Your task to perform on an android device: toggle show notifications on the lock screen Image 0: 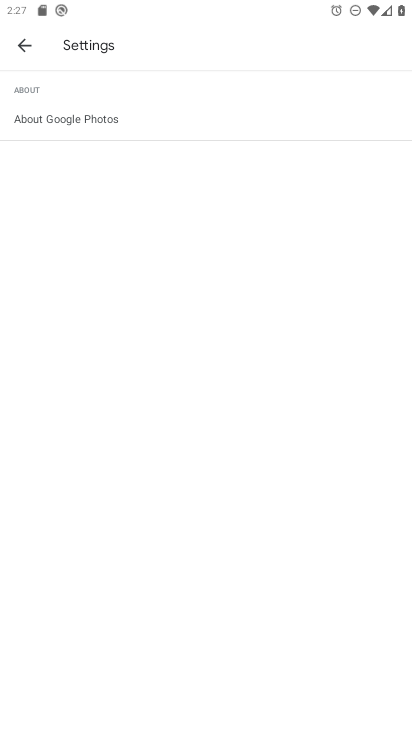
Step 0: click (17, 45)
Your task to perform on an android device: toggle show notifications on the lock screen Image 1: 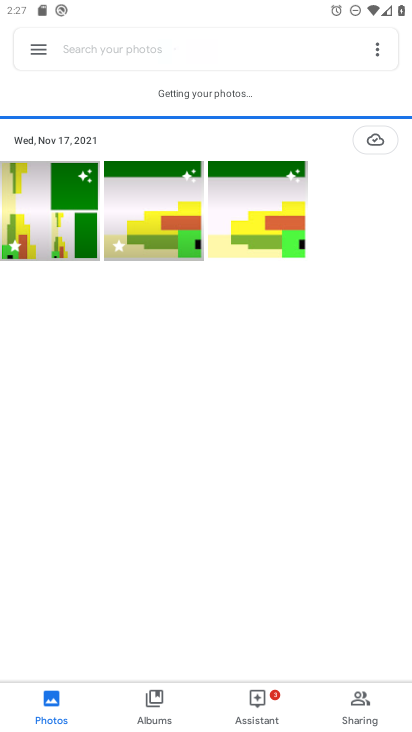
Step 1: press home button
Your task to perform on an android device: toggle show notifications on the lock screen Image 2: 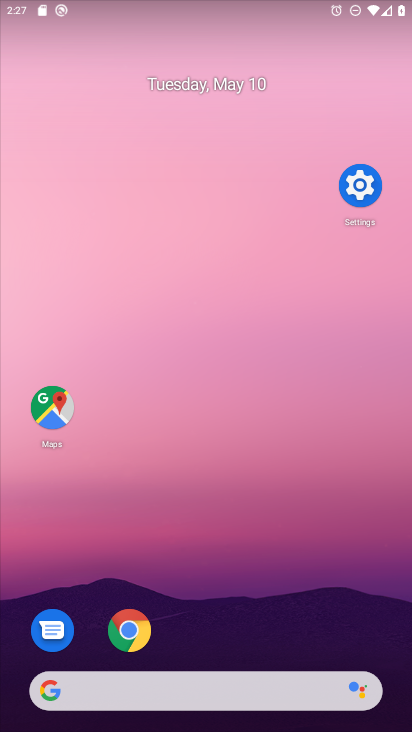
Step 2: drag from (303, 622) to (232, 55)
Your task to perform on an android device: toggle show notifications on the lock screen Image 3: 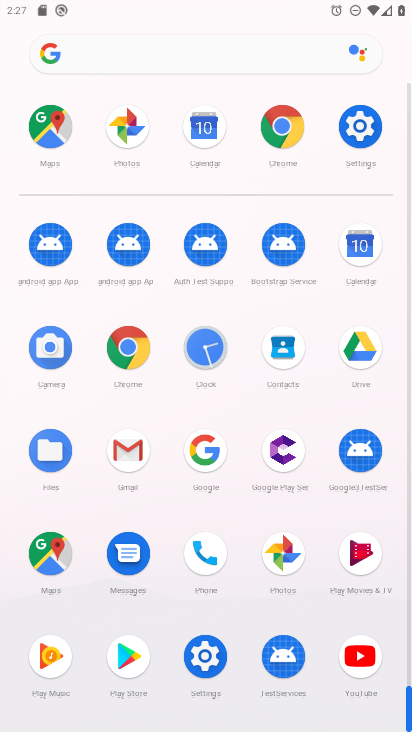
Step 3: click (352, 120)
Your task to perform on an android device: toggle show notifications on the lock screen Image 4: 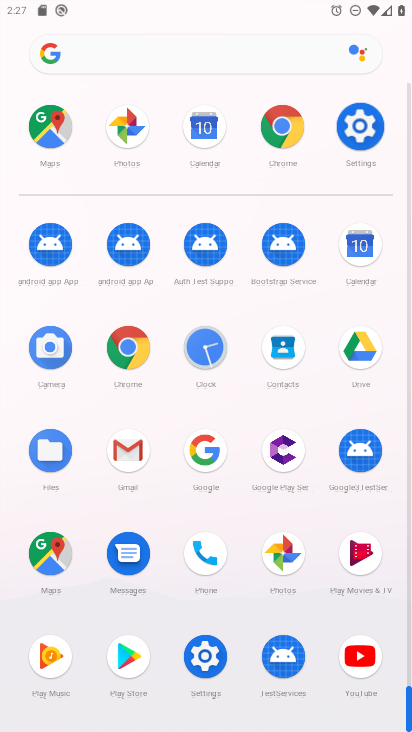
Step 4: click (352, 120)
Your task to perform on an android device: toggle show notifications on the lock screen Image 5: 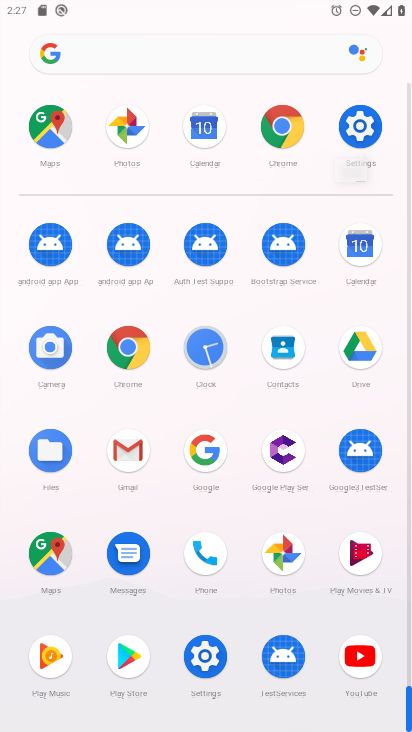
Step 5: click (352, 120)
Your task to perform on an android device: toggle show notifications on the lock screen Image 6: 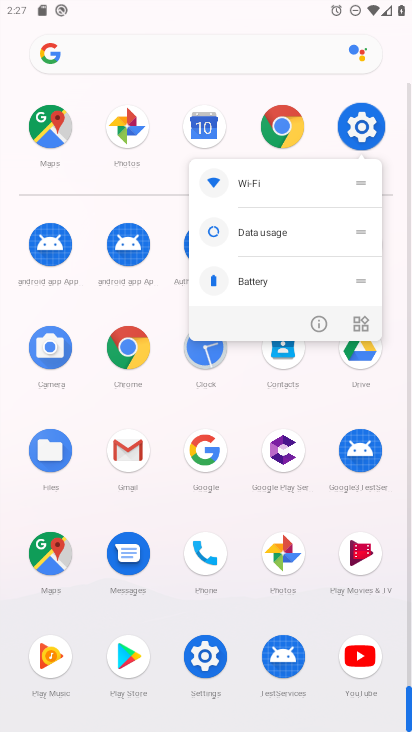
Step 6: click (352, 120)
Your task to perform on an android device: toggle show notifications on the lock screen Image 7: 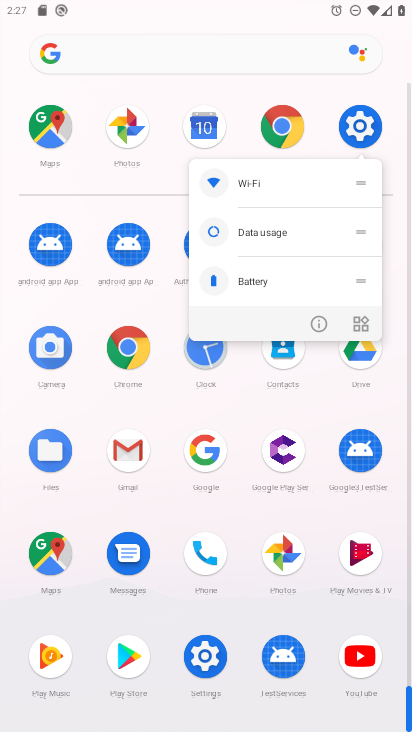
Step 7: click (352, 120)
Your task to perform on an android device: toggle show notifications on the lock screen Image 8: 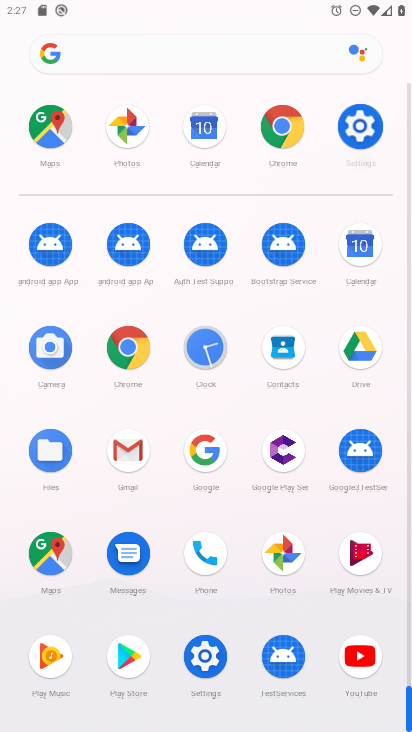
Step 8: click (353, 121)
Your task to perform on an android device: toggle show notifications on the lock screen Image 9: 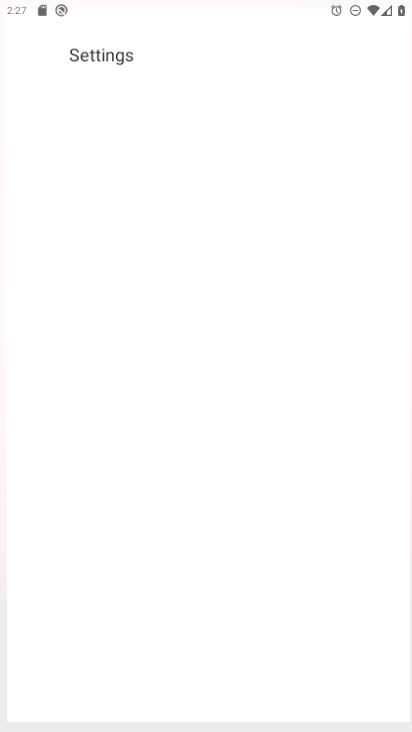
Step 9: click (355, 121)
Your task to perform on an android device: toggle show notifications on the lock screen Image 10: 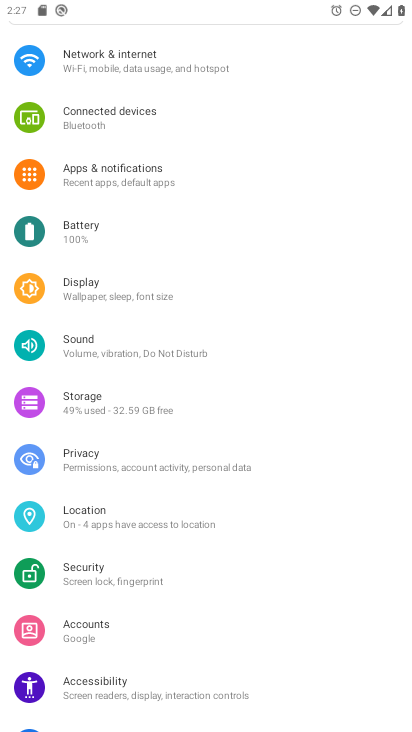
Step 10: click (130, 177)
Your task to perform on an android device: toggle show notifications on the lock screen Image 11: 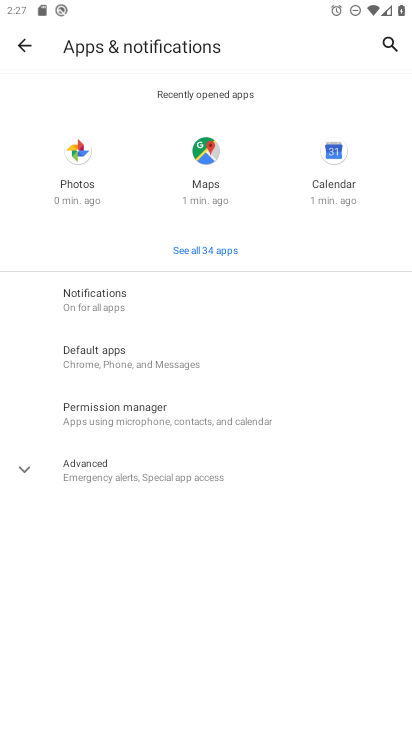
Step 11: click (96, 291)
Your task to perform on an android device: toggle show notifications on the lock screen Image 12: 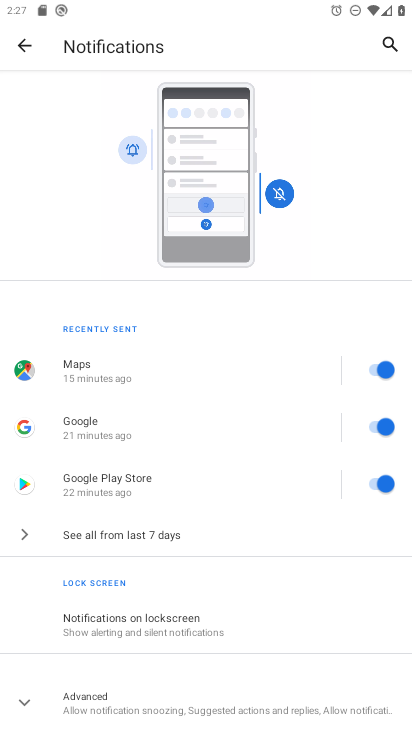
Step 12: drag from (233, 431) to (236, 283)
Your task to perform on an android device: toggle show notifications on the lock screen Image 13: 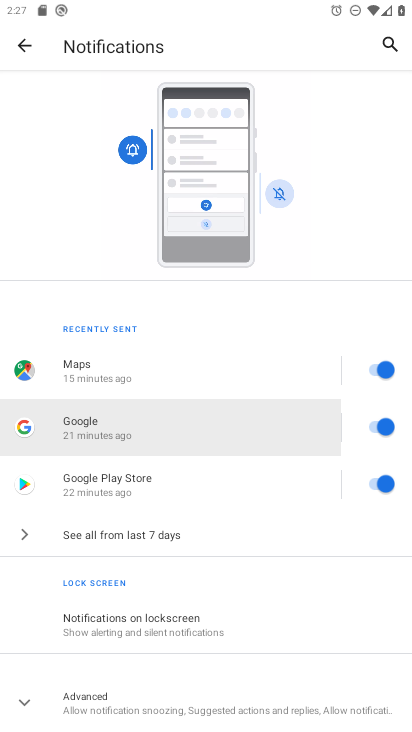
Step 13: drag from (258, 487) to (289, 173)
Your task to perform on an android device: toggle show notifications on the lock screen Image 14: 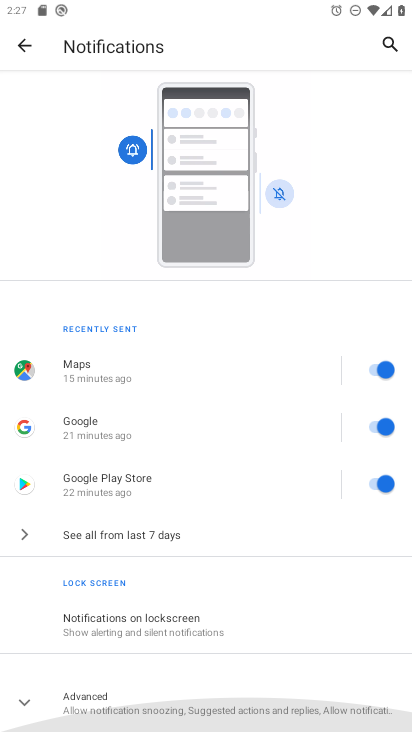
Step 14: drag from (198, 584) to (225, 335)
Your task to perform on an android device: toggle show notifications on the lock screen Image 15: 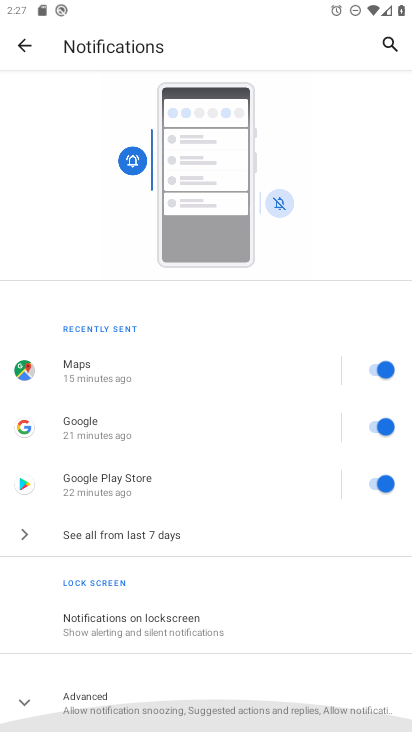
Step 15: drag from (194, 500) to (194, 383)
Your task to perform on an android device: toggle show notifications on the lock screen Image 16: 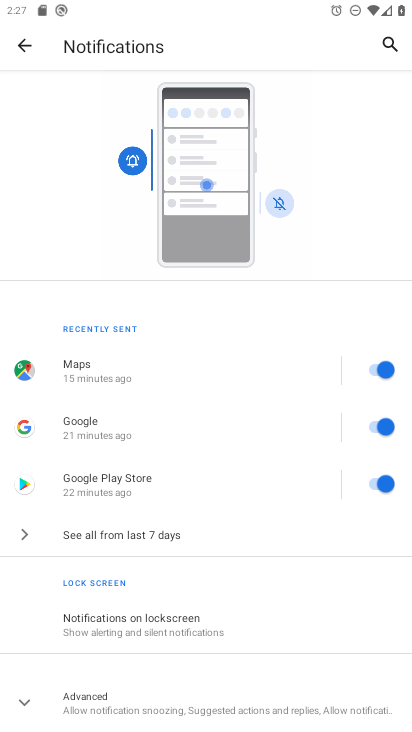
Step 16: click (147, 623)
Your task to perform on an android device: toggle show notifications on the lock screen Image 17: 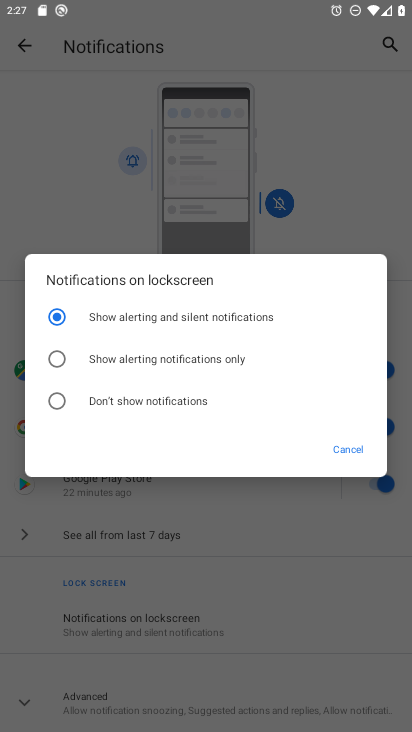
Step 17: click (342, 443)
Your task to perform on an android device: toggle show notifications on the lock screen Image 18: 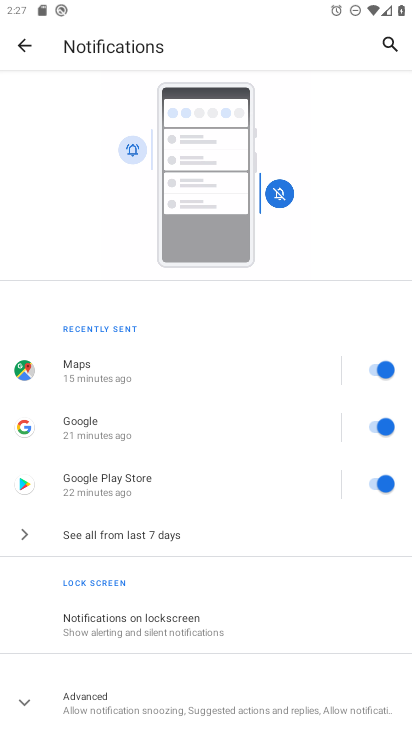
Step 18: task complete